Your task to perform on an android device: visit the assistant section in the google photos Image 0: 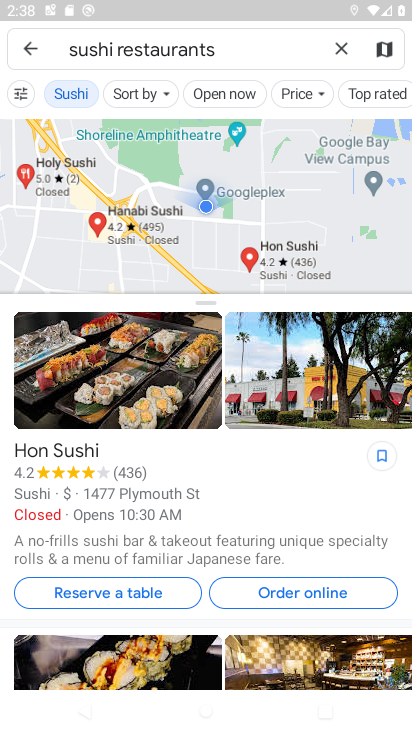
Step 0: press home button
Your task to perform on an android device: visit the assistant section in the google photos Image 1: 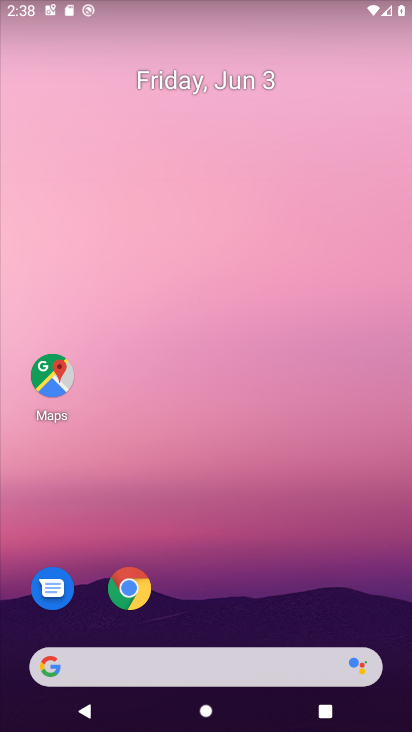
Step 1: drag from (239, 476) to (280, 14)
Your task to perform on an android device: visit the assistant section in the google photos Image 2: 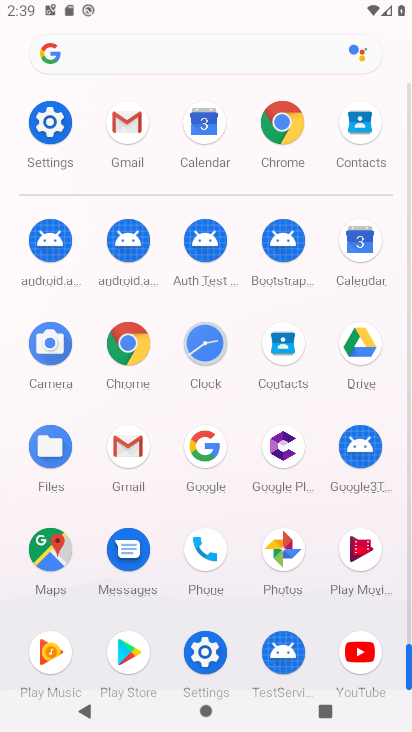
Step 2: click (204, 456)
Your task to perform on an android device: visit the assistant section in the google photos Image 3: 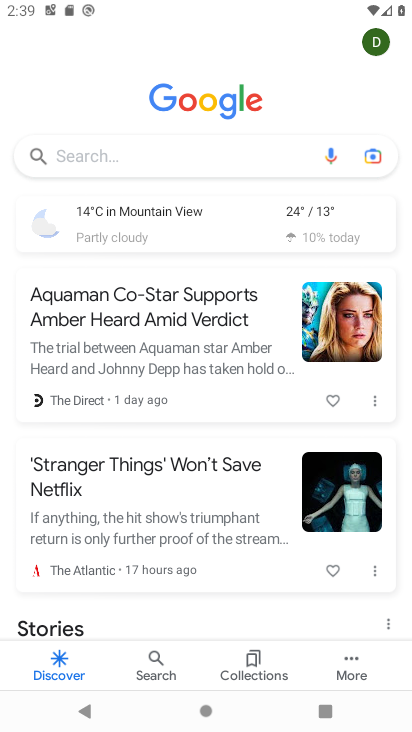
Step 3: press home button
Your task to perform on an android device: visit the assistant section in the google photos Image 4: 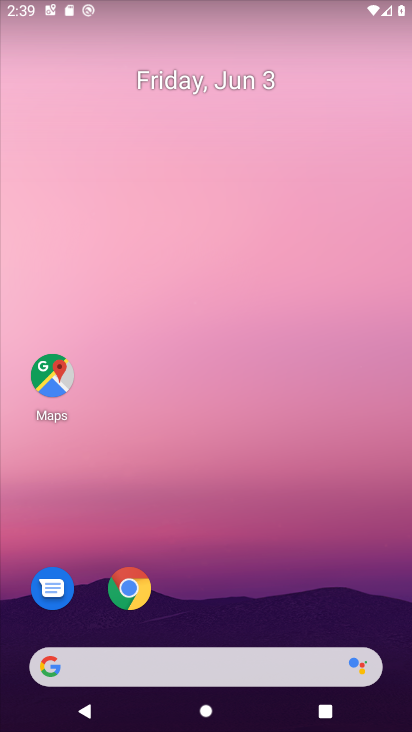
Step 4: drag from (188, 594) to (262, 16)
Your task to perform on an android device: visit the assistant section in the google photos Image 5: 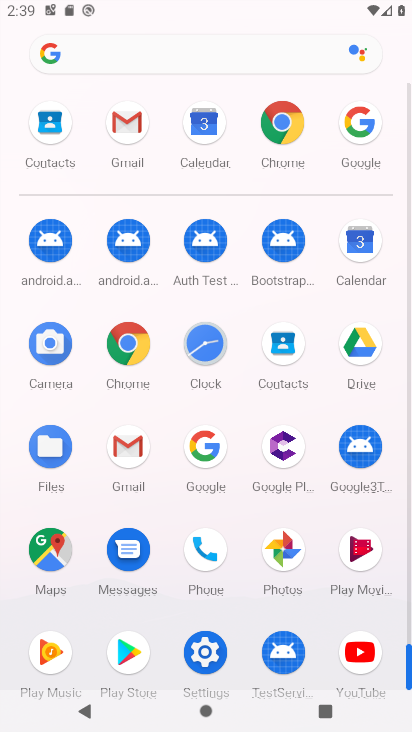
Step 5: click (278, 574)
Your task to perform on an android device: visit the assistant section in the google photos Image 6: 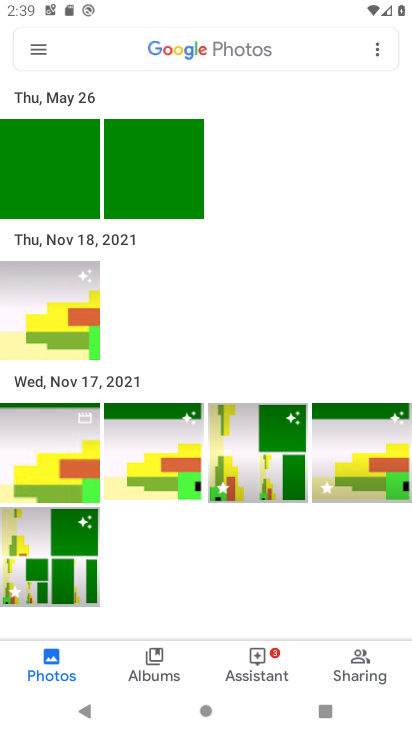
Step 6: click (41, 52)
Your task to perform on an android device: visit the assistant section in the google photos Image 7: 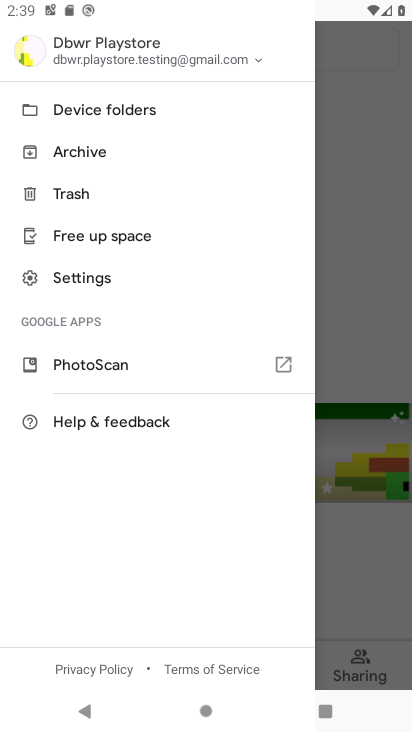
Step 7: click (78, 116)
Your task to perform on an android device: visit the assistant section in the google photos Image 8: 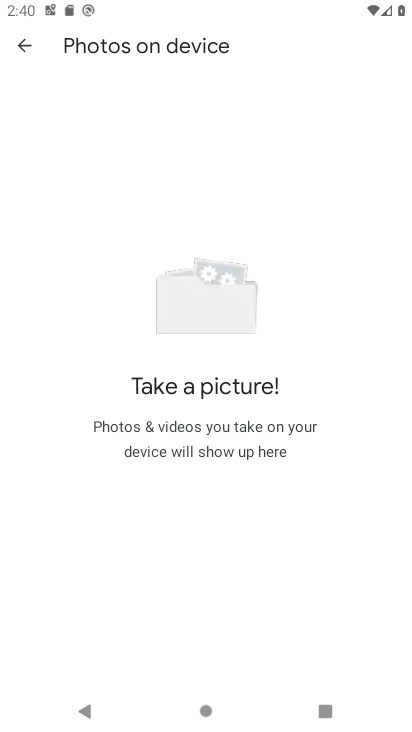
Step 8: task complete